Your task to perform on an android device: toggle translation in the chrome app Image 0: 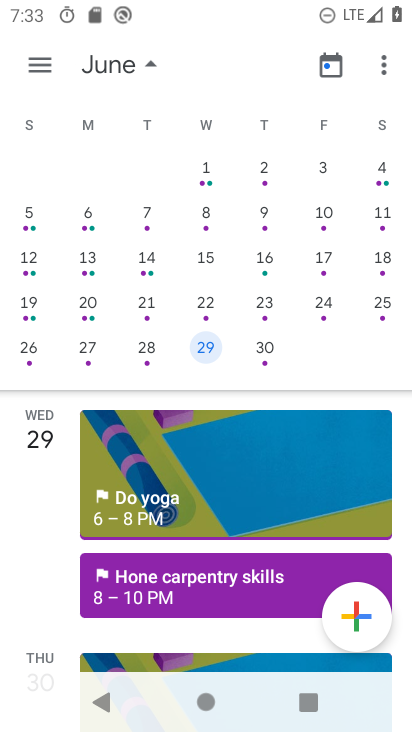
Step 0: press home button
Your task to perform on an android device: toggle translation in the chrome app Image 1: 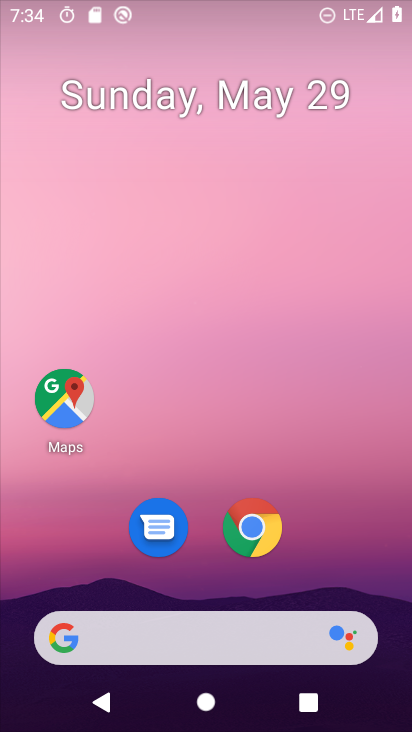
Step 1: drag from (351, 609) to (323, 115)
Your task to perform on an android device: toggle translation in the chrome app Image 2: 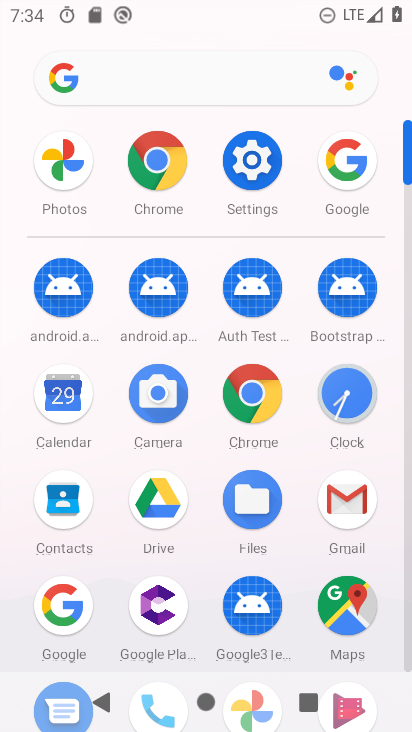
Step 2: click (172, 173)
Your task to perform on an android device: toggle translation in the chrome app Image 3: 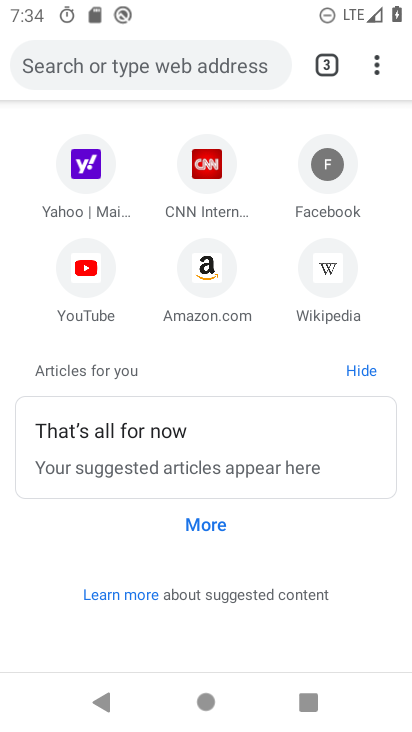
Step 3: click (377, 69)
Your task to perform on an android device: toggle translation in the chrome app Image 4: 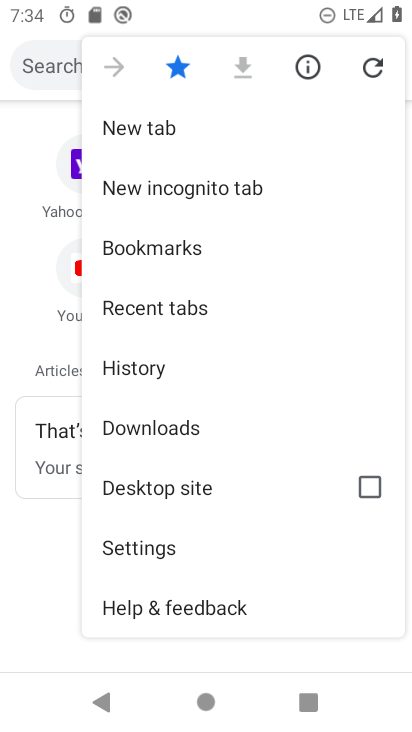
Step 4: click (142, 549)
Your task to perform on an android device: toggle translation in the chrome app Image 5: 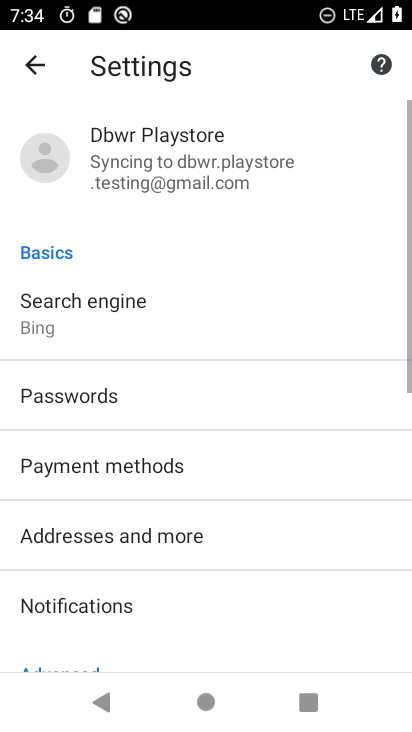
Step 5: drag from (114, 588) to (101, 211)
Your task to perform on an android device: toggle translation in the chrome app Image 6: 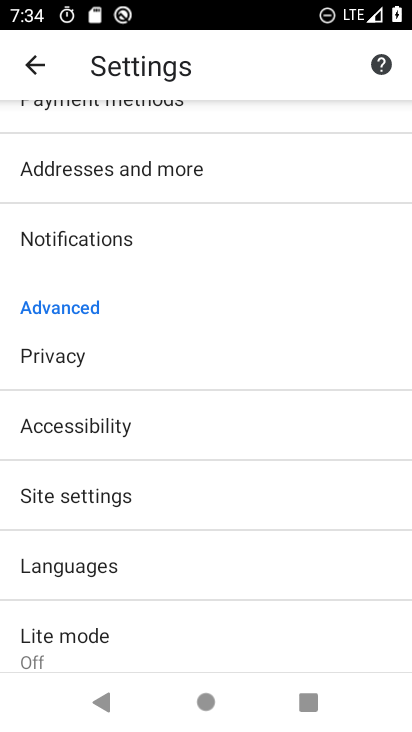
Step 6: click (85, 562)
Your task to perform on an android device: toggle translation in the chrome app Image 7: 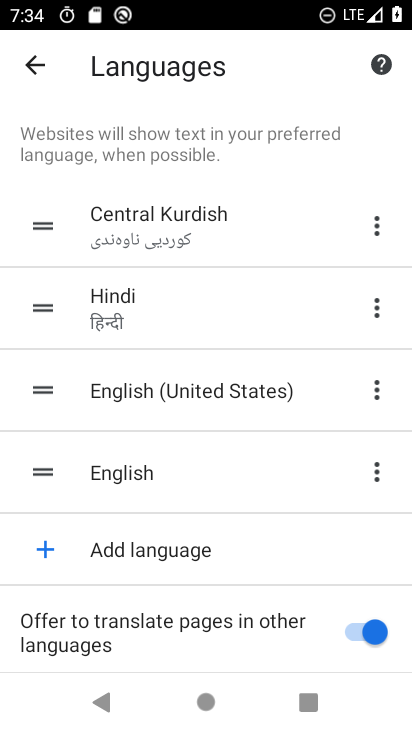
Step 7: click (374, 637)
Your task to perform on an android device: toggle translation in the chrome app Image 8: 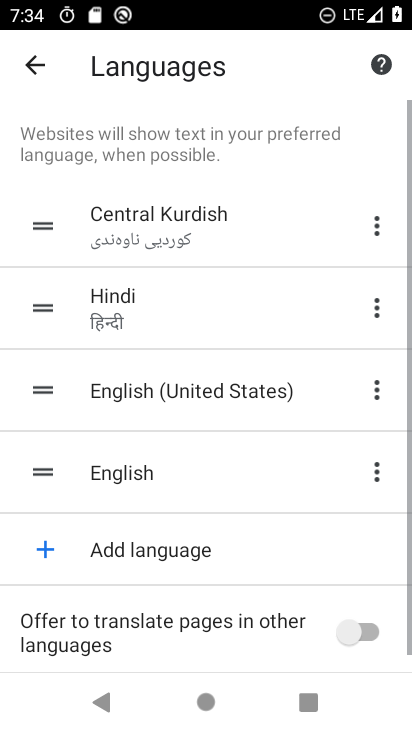
Step 8: task complete